Your task to perform on an android device: read, delete, or share a saved page in the chrome app Image 0: 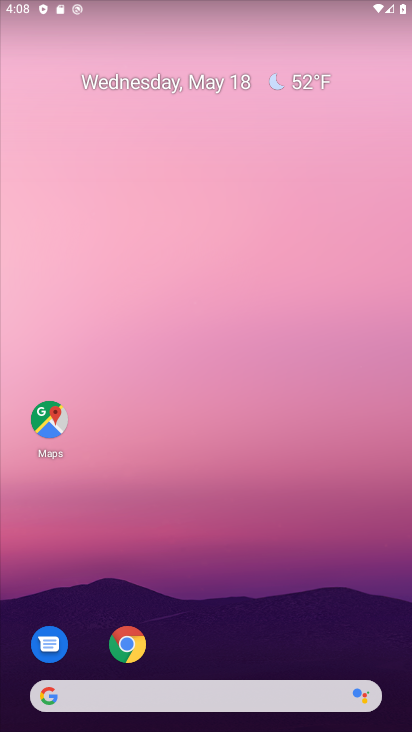
Step 0: click (130, 638)
Your task to perform on an android device: read, delete, or share a saved page in the chrome app Image 1: 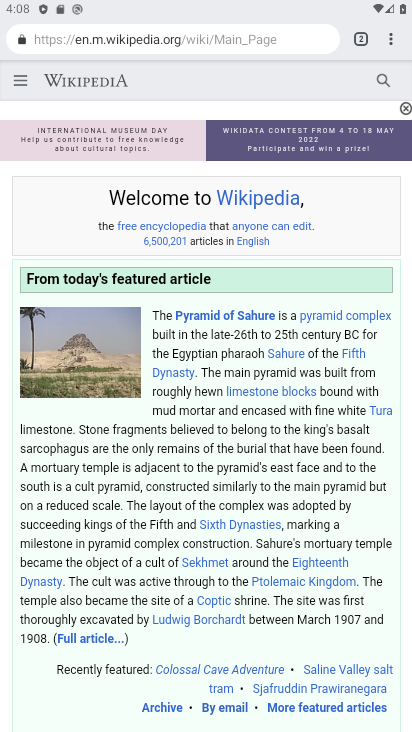
Step 1: click (395, 37)
Your task to perform on an android device: read, delete, or share a saved page in the chrome app Image 2: 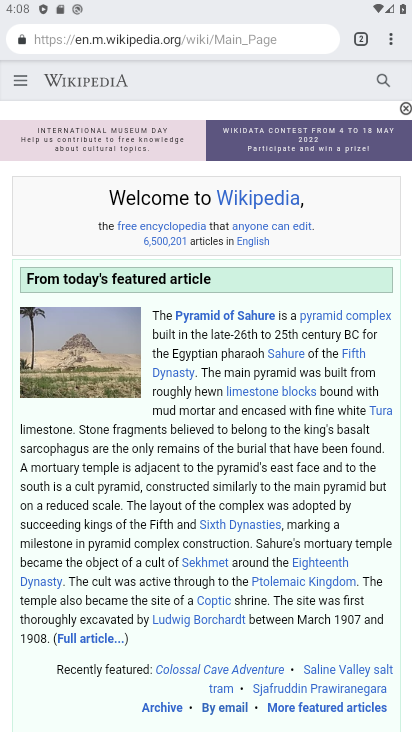
Step 2: task complete